Your task to perform on an android device: When is my next appointment? Image 0: 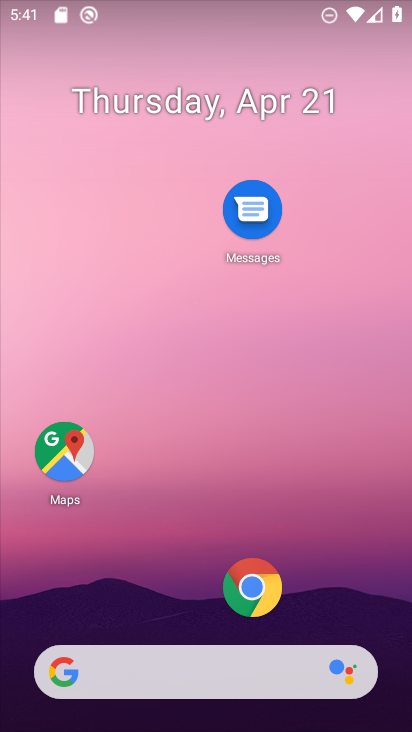
Step 0: drag from (200, 594) to (219, 67)
Your task to perform on an android device: When is my next appointment? Image 1: 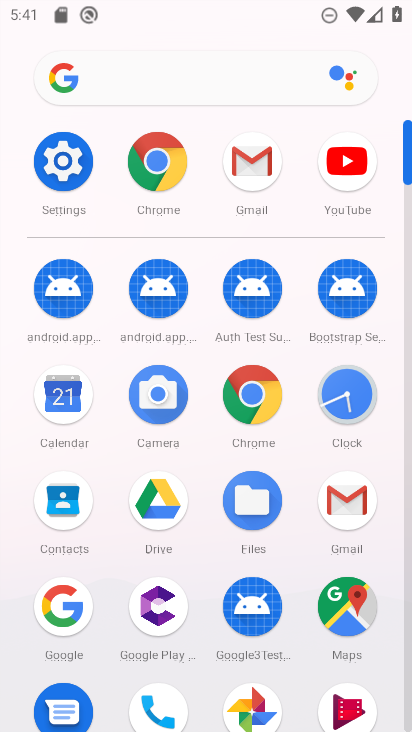
Step 1: click (62, 391)
Your task to perform on an android device: When is my next appointment? Image 2: 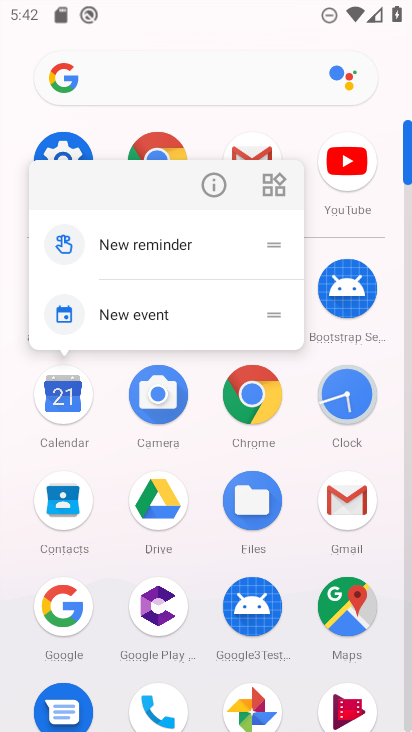
Step 2: click (65, 405)
Your task to perform on an android device: When is my next appointment? Image 3: 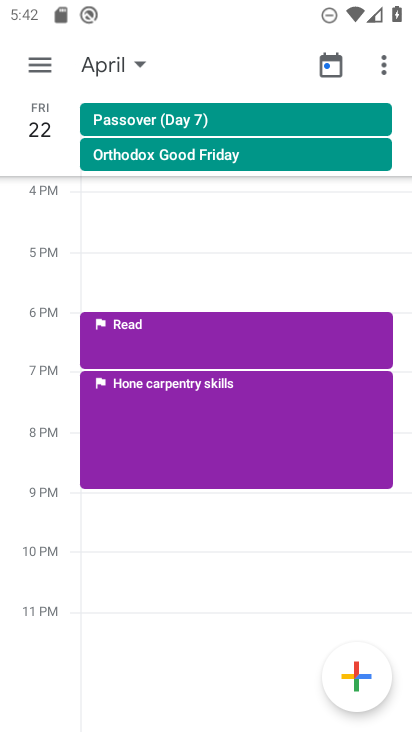
Step 3: task complete